Your task to perform on an android device: turn off javascript in the chrome app Image 0: 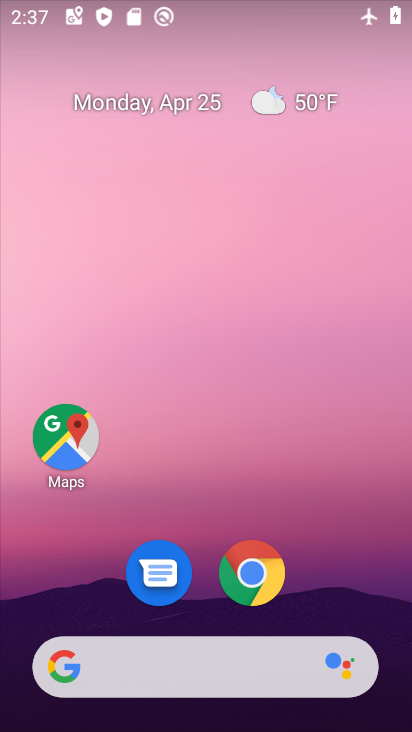
Step 0: drag from (362, 544) to (237, 3)
Your task to perform on an android device: turn off javascript in the chrome app Image 1: 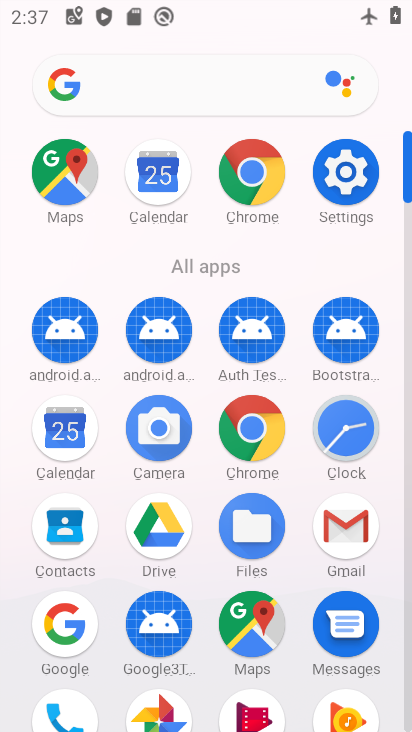
Step 1: click (249, 166)
Your task to perform on an android device: turn off javascript in the chrome app Image 2: 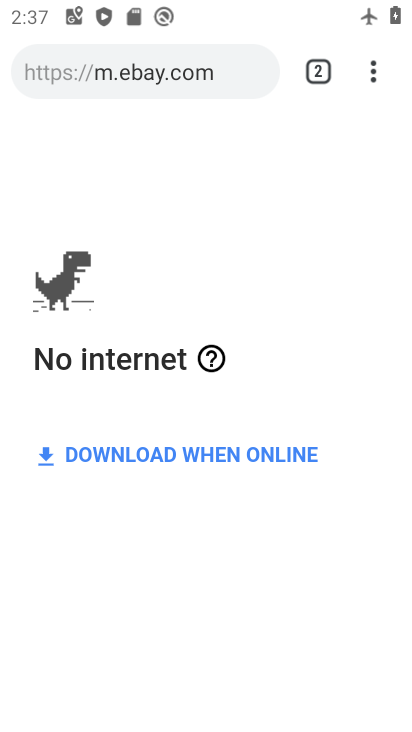
Step 2: drag from (383, 73) to (178, 562)
Your task to perform on an android device: turn off javascript in the chrome app Image 3: 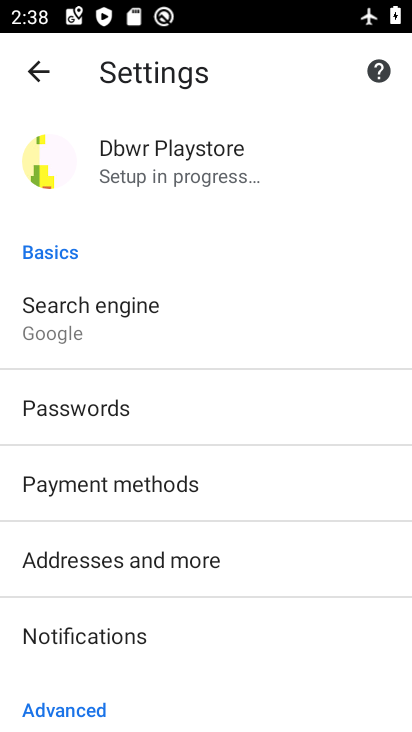
Step 3: drag from (152, 638) to (222, 207)
Your task to perform on an android device: turn off javascript in the chrome app Image 4: 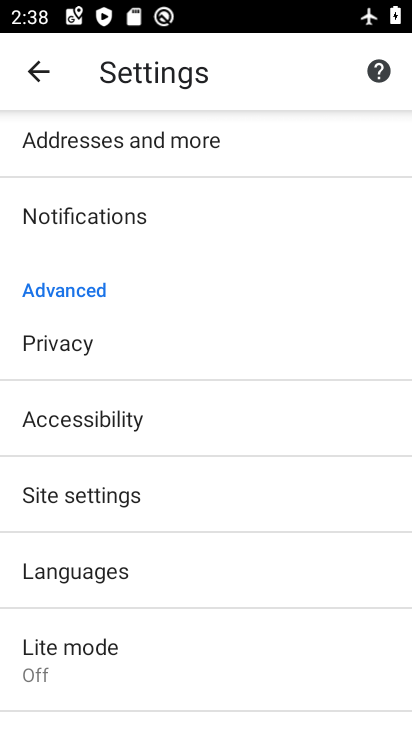
Step 4: drag from (194, 628) to (230, 253)
Your task to perform on an android device: turn off javascript in the chrome app Image 5: 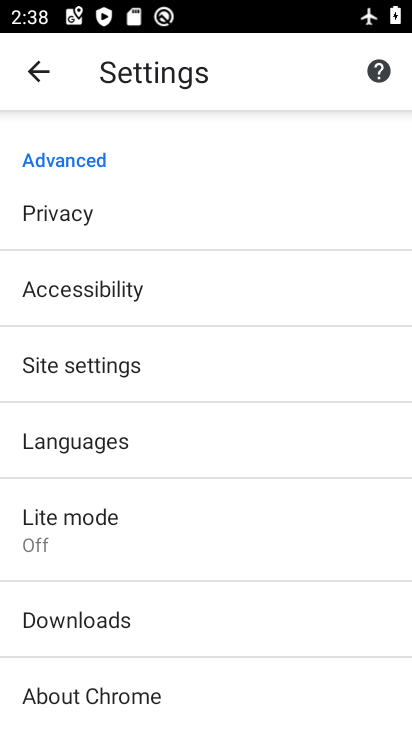
Step 5: click (120, 363)
Your task to perform on an android device: turn off javascript in the chrome app Image 6: 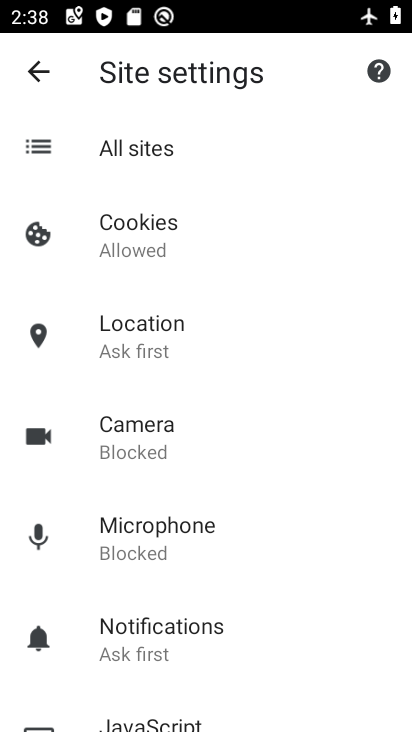
Step 6: drag from (357, 699) to (321, 250)
Your task to perform on an android device: turn off javascript in the chrome app Image 7: 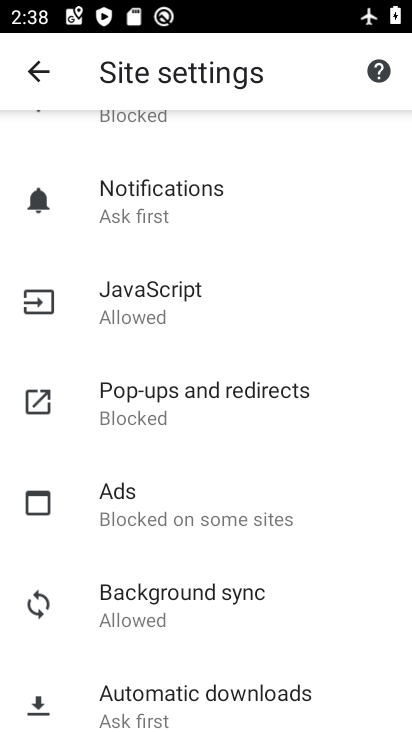
Step 7: click (151, 310)
Your task to perform on an android device: turn off javascript in the chrome app Image 8: 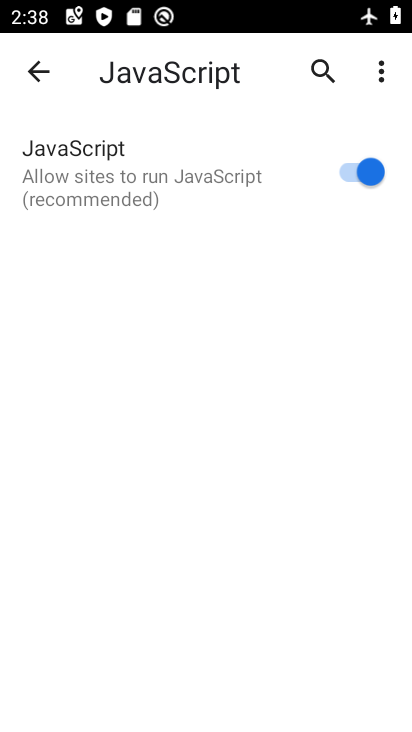
Step 8: click (358, 182)
Your task to perform on an android device: turn off javascript in the chrome app Image 9: 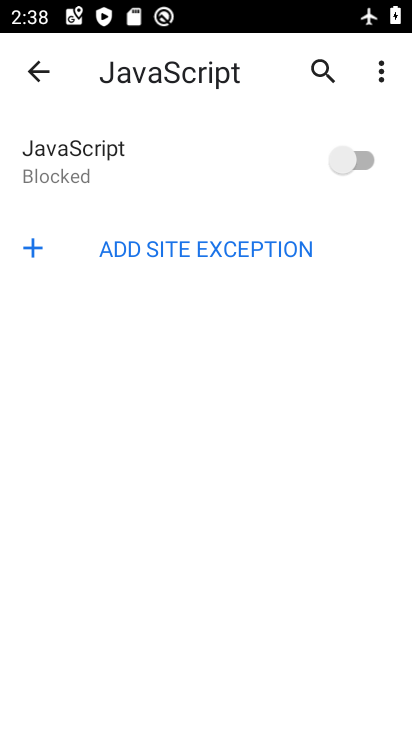
Step 9: task complete